Your task to perform on an android device: Go to calendar. Show me events next week Image 0: 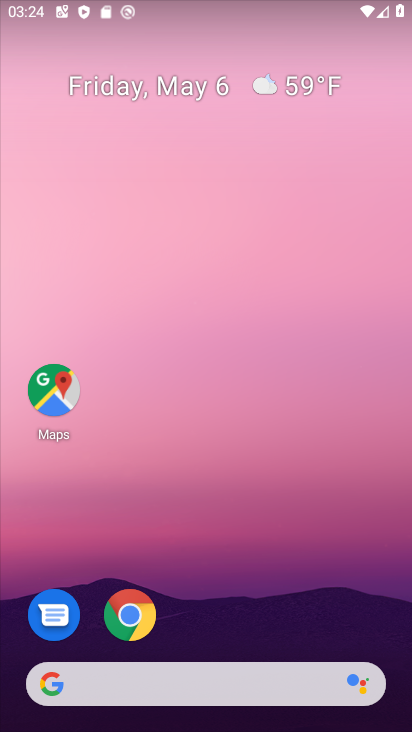
Step 0: drag from (363, 581) to (133, 38)
Your task to perform on an android device: Go to calendar. Show me events next week Image 1: 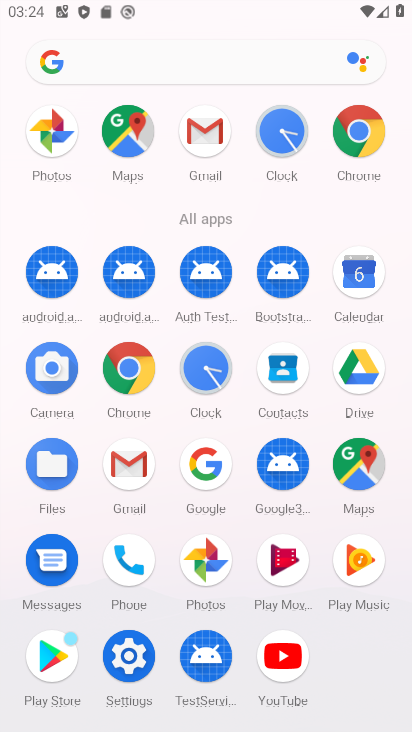
Step 1: click (370, 277)
Your task to perform on an android device: Go to calendar. Show me events next week Image 2: 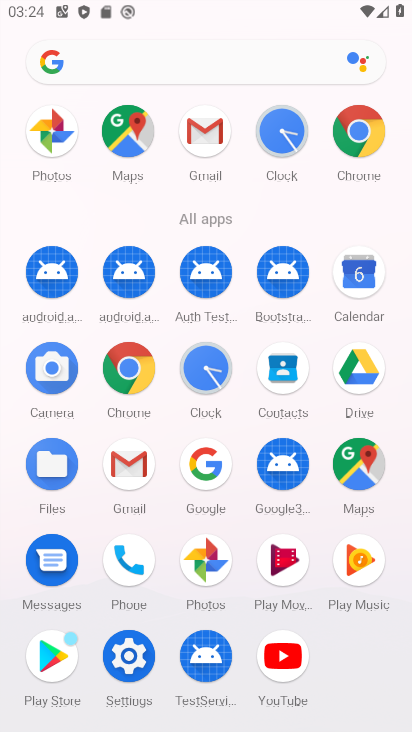
Step 2: click (370, 277)
Your task to perform on an android device: Go to calendar. Show me events next week Image 3: 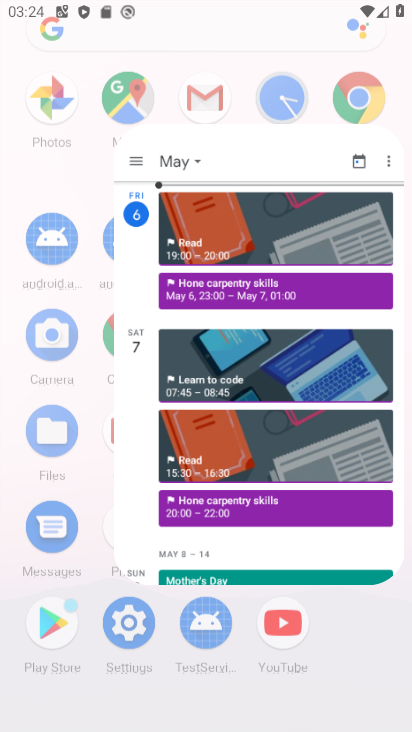
Step 3: click (374, 277)
Your task to perform on an android device: Go to calendar. Show me events next week Image 4: 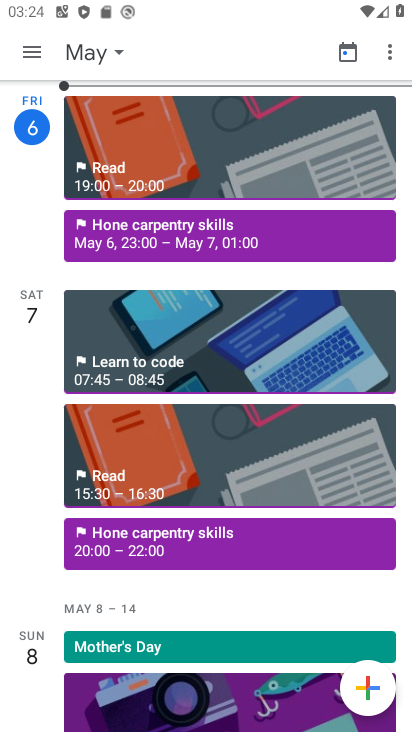
Step 4: drag from (159, 520) to (93, 107)
Your task to perform on an android device: Go to calendar. Show me events next week Image 5: 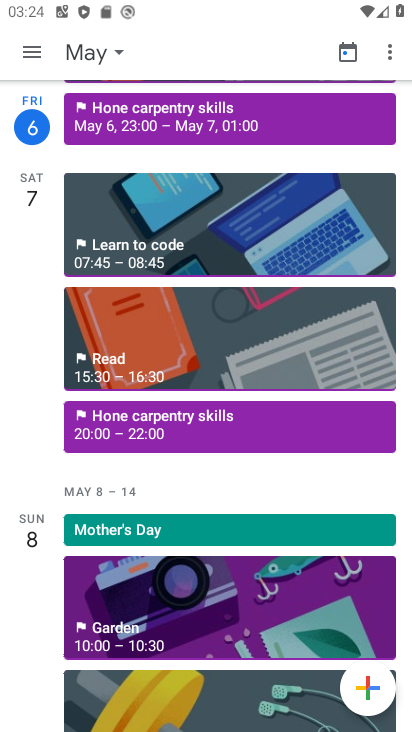
Step 5: drag from (198, 535) to (131, 182)
Your task to perform on an android device: Go to calendar. Show me events next week Image 6: 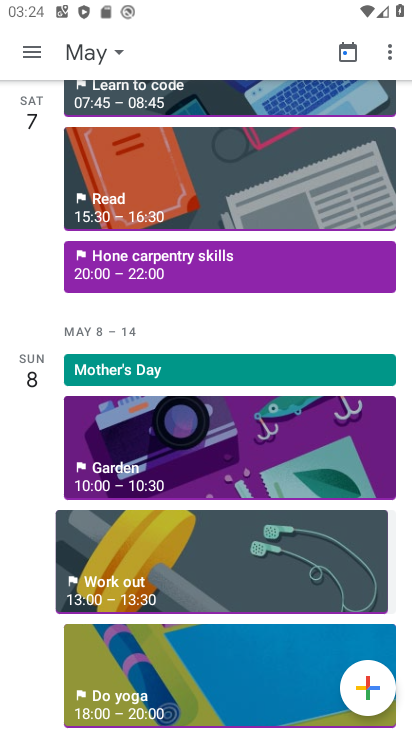
Step 6: drag from (124, 549) to (104, 63)
Your task to perform on an android device: Go to calendar. Show me events next week Image 7: 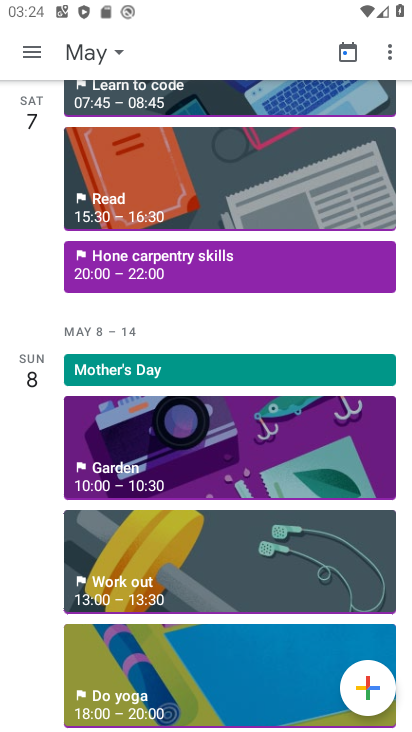
Step 7: drag from (185, 532) to (185, 114)
Your task to perform on an android device: Go to calendar. Show me events next week Image 8: 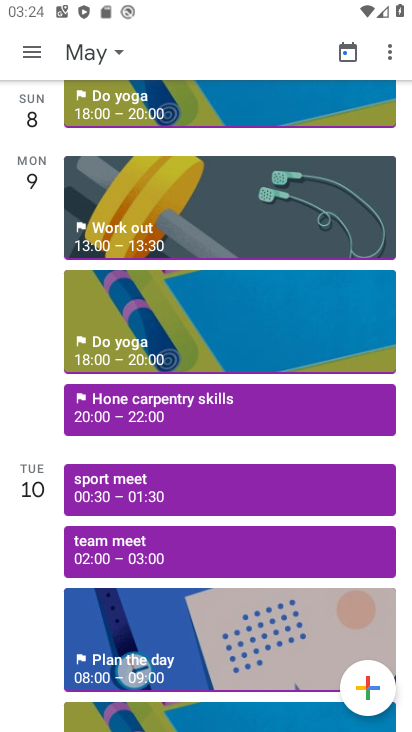
Step 8: drag from (184, 455) to (161, 141)
Your task to perform on an android device: Go to calendar. Show me events next week Image 9: 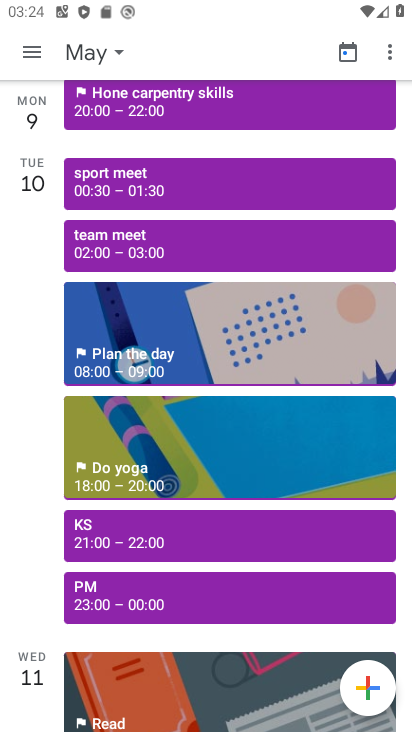
Step 9: drag from (169, 486) to (112, 198)
Your task to perform on an android device: Go to calendar. Show me events next week Image 10: 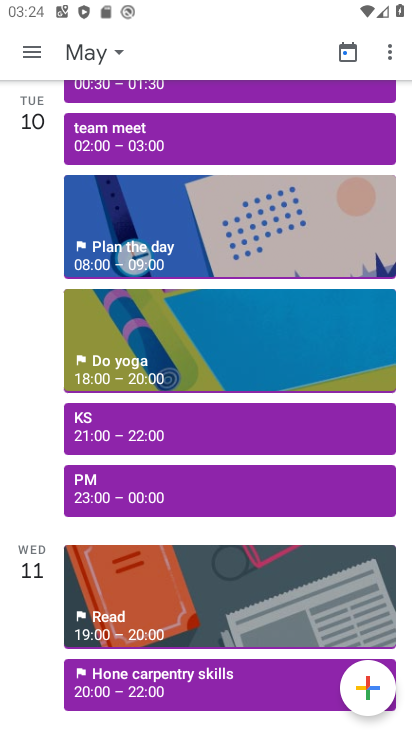
Step 10: drag from (121, 418) to (127, 151)
Your task to perform on an android device: Go to calendar. Show me events next week Image 11: 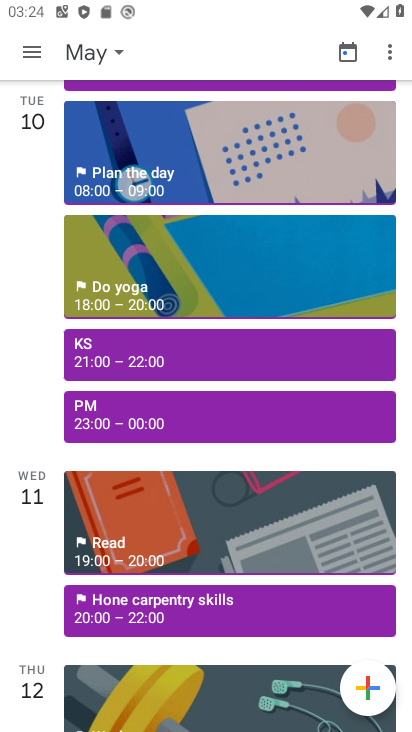
Step 11: drag from (156, 543) to (105, 74)
Your task to perform on an android device: Go to calendar. Show me events next week Image 12: 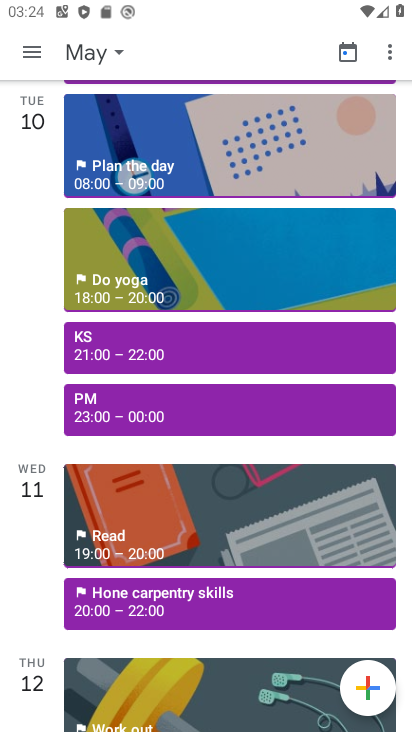
Step 12: drag from (150, 506) to (129, 157)
Your task to perform on an android device: Go to calendar. Show me events next week Image 13: 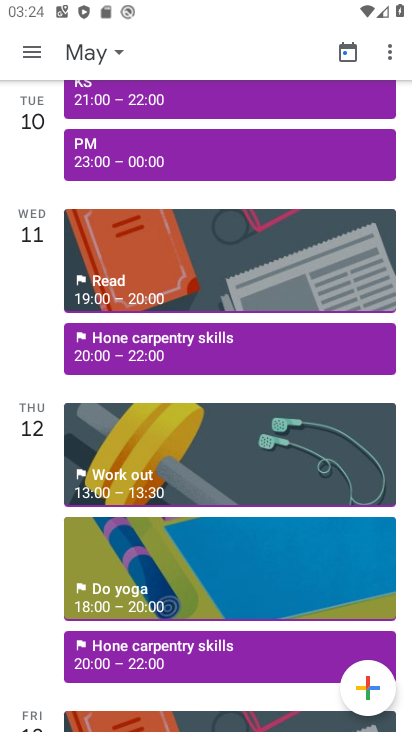
Step 13: drag from (121, 497) to (68, 105)
Your task to perform on an android device: Go to calendar. Show me events next week Image 14: 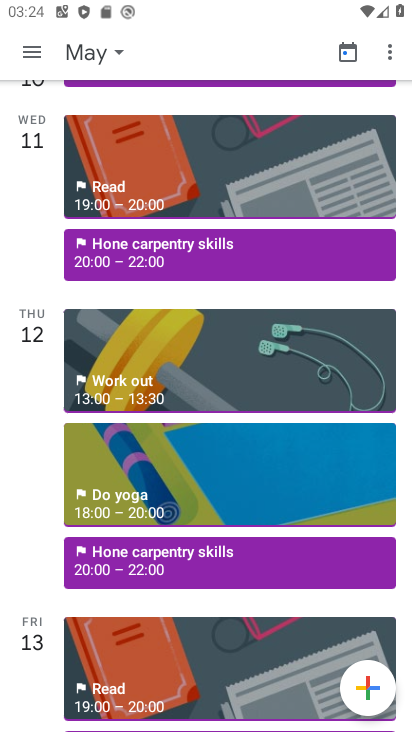
Step 14: drag from (147, 504) to (147, 72)
Your task to perform on an android device: Go to calendar. Show me events next week Image 15: 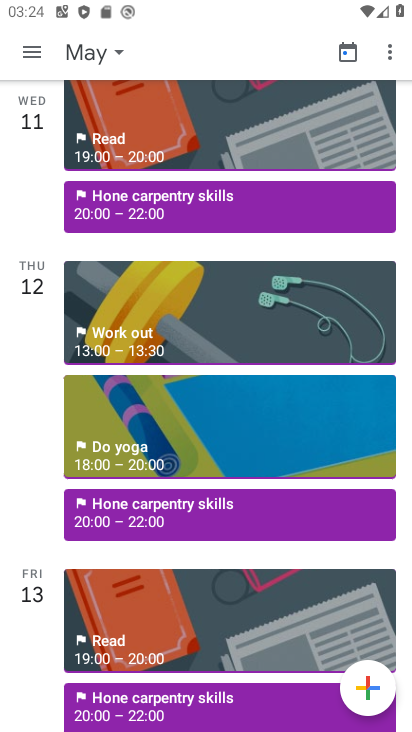
Step 15: drag from (202, 568) to (245, 28)
Your task to perform on an android device: Go to calendar. Show me events next week Image 16: 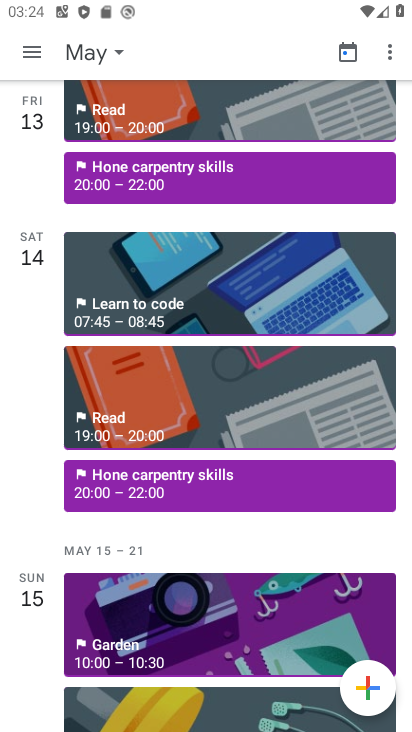
Step 16: drag from (138, 421) to (128, 35)
Your task to perform on an android device: Go to calendar. Show me events next week Image 17: 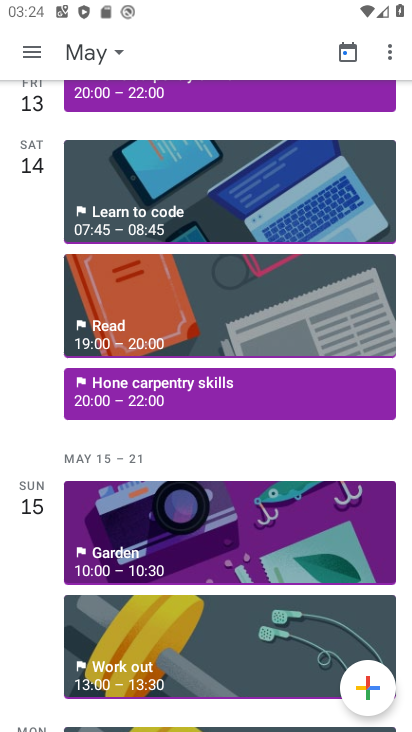
Step 17: drag from (108, 581) to (77, 102)
Your task to perform on an android device: Go to calendar. Show me events next week Image 18: 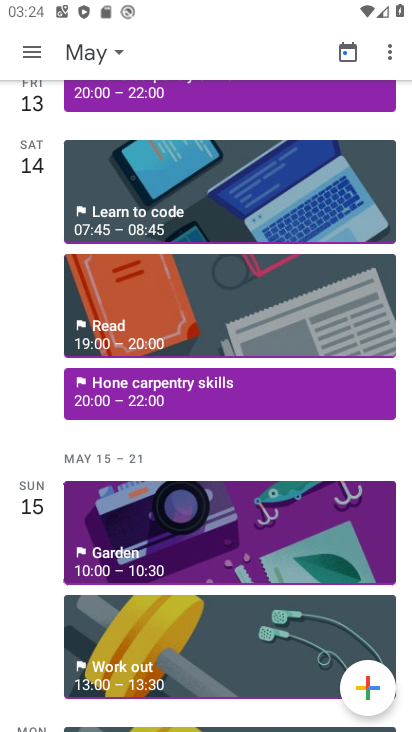
Step 18: drag from (187, 724) to (84, 74)
Your task to perform on an android device: Go to calendar. Show me events next week Image 19: 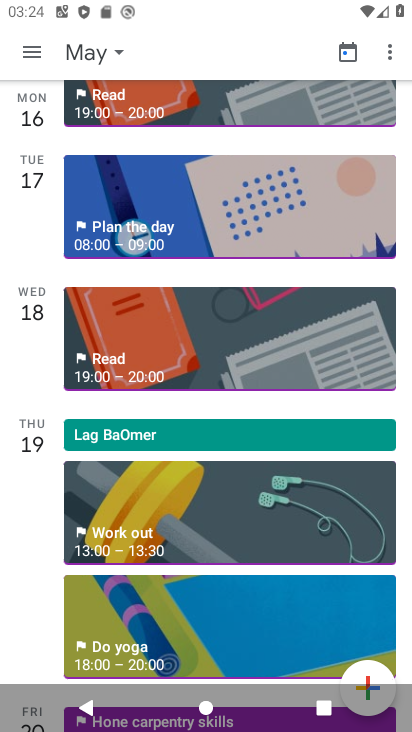
Step 19: drag from (83, 615) to (83, 279)
Your task to perform on an android device: Go to calendar. Show me events next week Image 20: 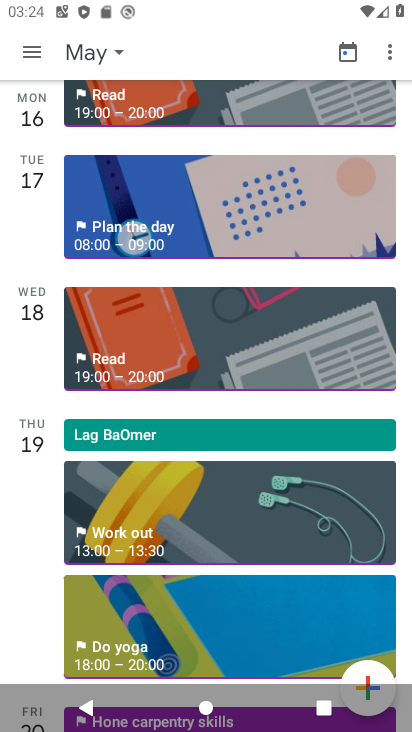
Step 20: drag from (172, 539) to (199, 192)
Your task to perform on an android device: Go to calendar. Show me events next week Image 21: 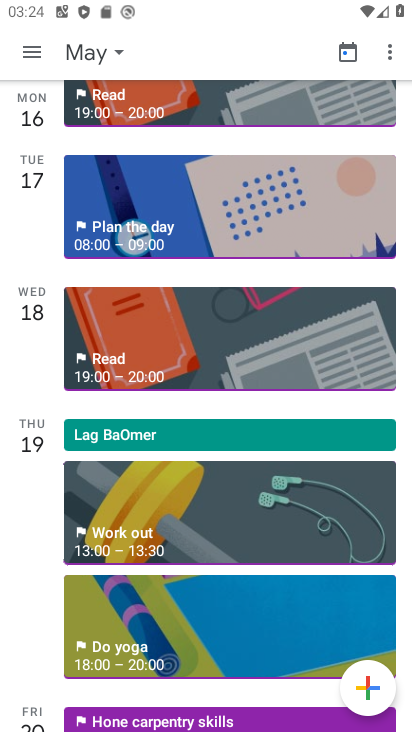
Step 21: drag from (146, 535) to (146, 189)
Your task to perform on an android device: Go to calendar. Show me events next week Image 22: 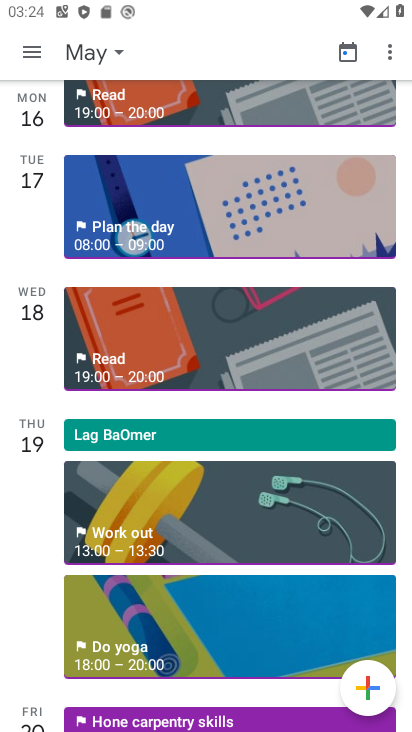
Step 22: drag from (202, 479) to (192, 213)
Your task to perform on an android device: Go to calendar. Show me events next week Image 23: 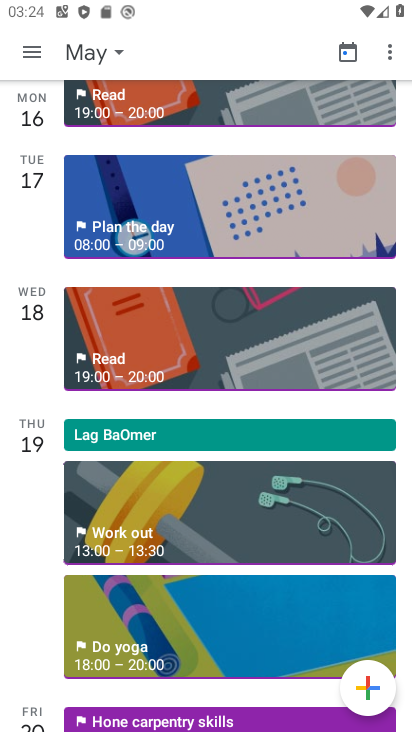
Step 23: drag from (149, 457) to (136, 216)
Your task to perform on an android device: Go to calendar. Show me events next week Image 24: 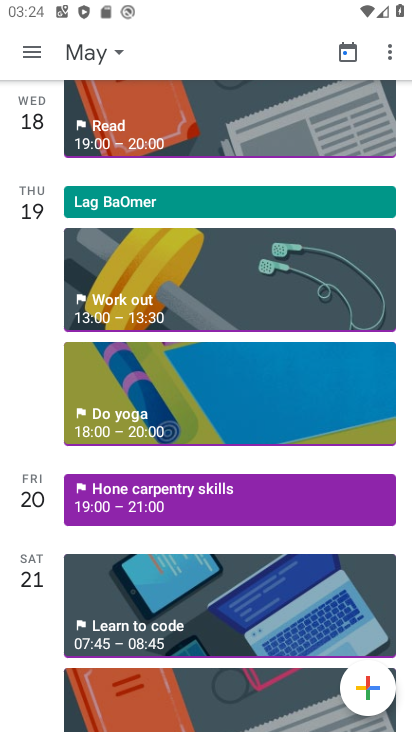
Step 24: drag from (159, 365) to (159, 112)
Your task to perform on an android device: Go to calendar. Show me events next week Image 25: 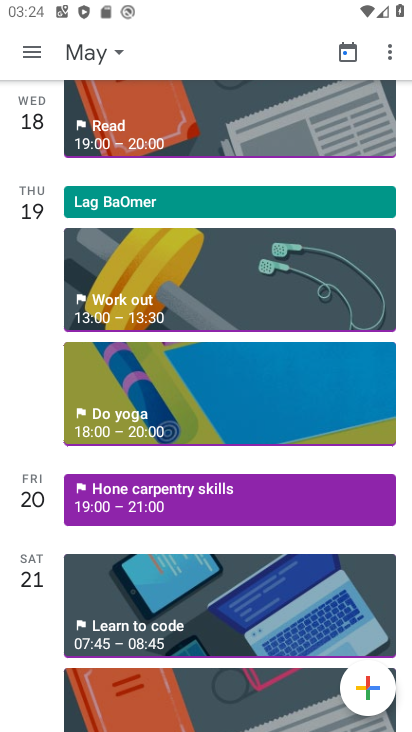
Step 25: drag from (192, 376) to (159, 17)
Your task to perform on an android device: Go to calendar. Show me events next week Image 26: 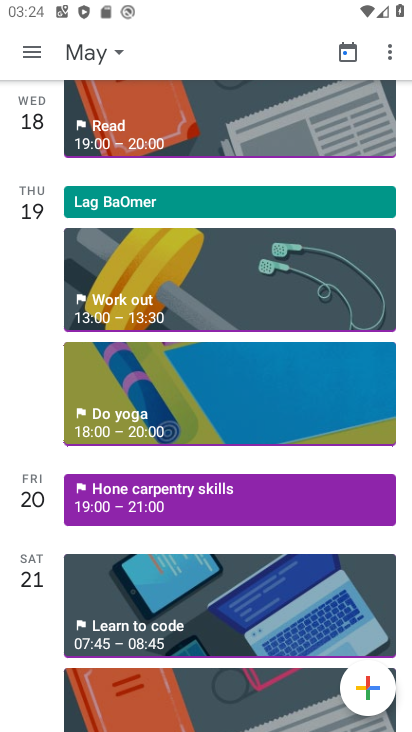
Step 26: drag from (119, 532) to (102, 56)
Your task to perform on an android device: Go to calendar. Show me events next week Image 27: 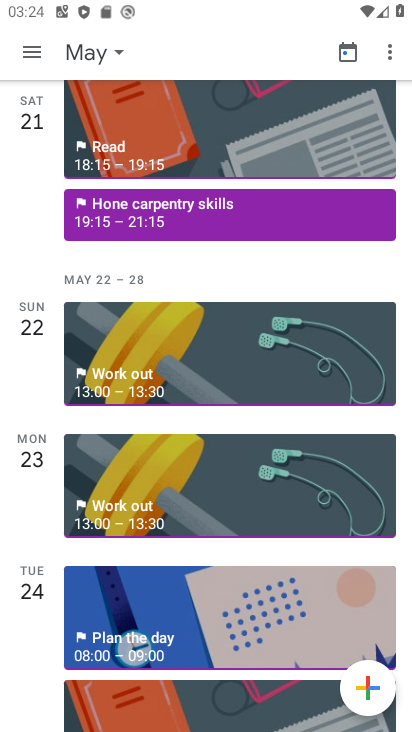
Step 27: drag from (127, 456) to (164, 156)
Your task to perform on an android device: Go to calendar. Show me events next week Image 28: 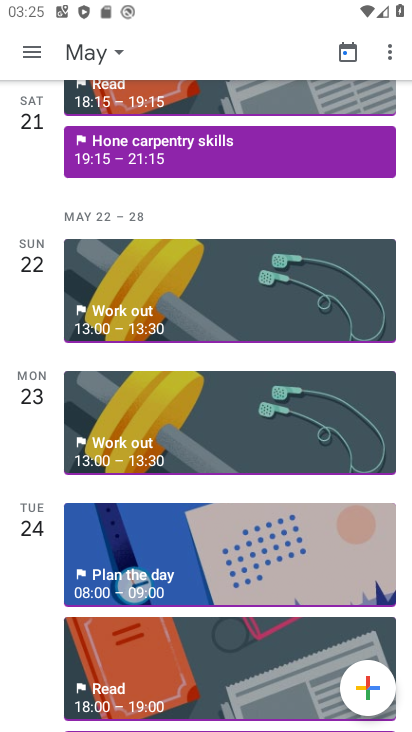
Step 28: drag from (155, 621) to (188, 183)
Your task to perform on an android device: Go to calendar. Show me events next week Image 29: 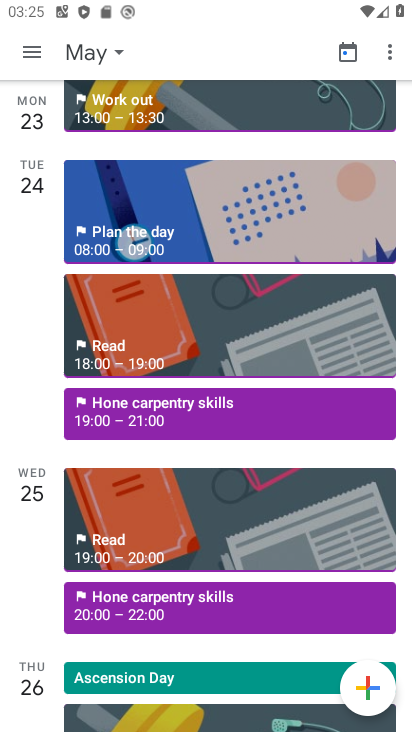
Step 29: drag from (248, 556) to (220, 163)
Your task to perform on an android device: Go to calendar. Show me events next week Image 30: 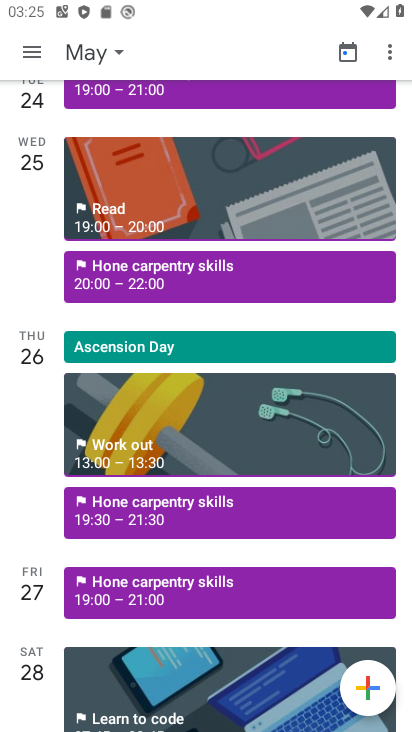
Step 30: click (149, 576)
Your task to perform on an android device: Go to calendar. Show me events next week Image 31: 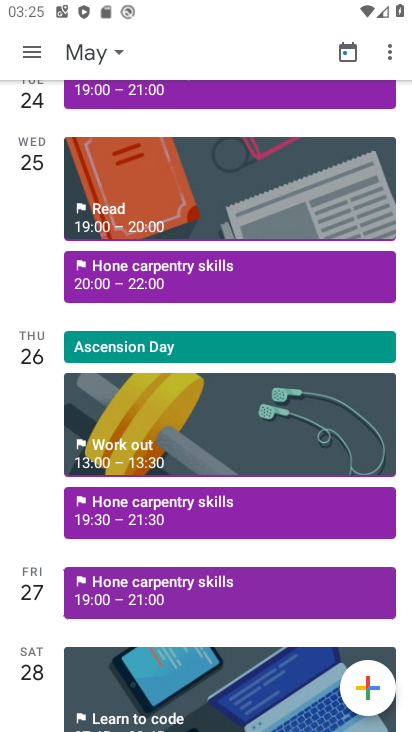
Step 31: click (151, 575)
Your task to perform on an android device: Go to calendar. Show me events next week Image 32: 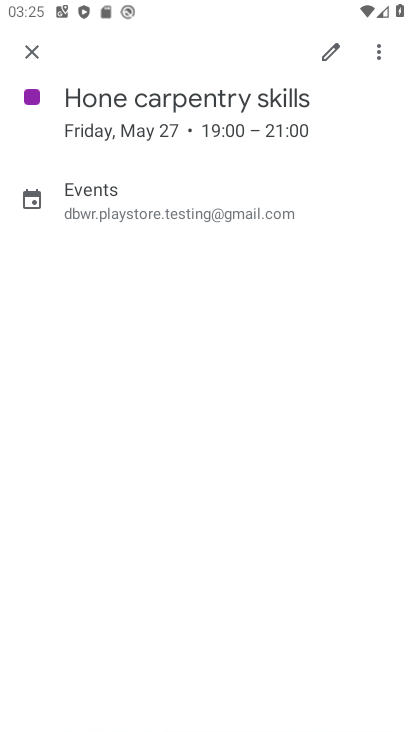
Step 32: click (37, 45)
Your task to perform on an android device: Go to calendar. Show me events next week Image 33: 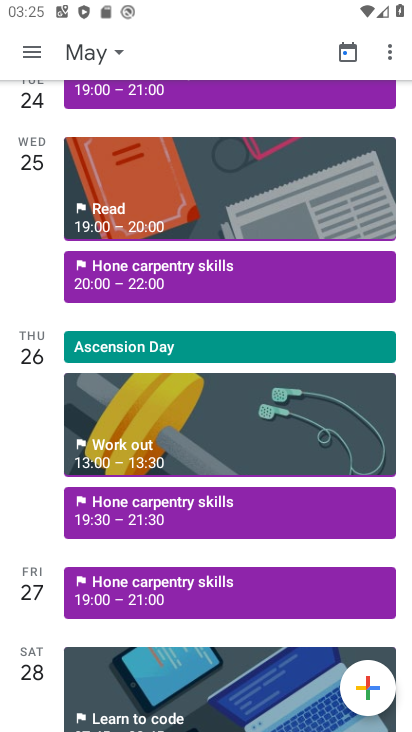
Step 33: task complete